Your task to perform on an android device: all mails in gmail Image 0: 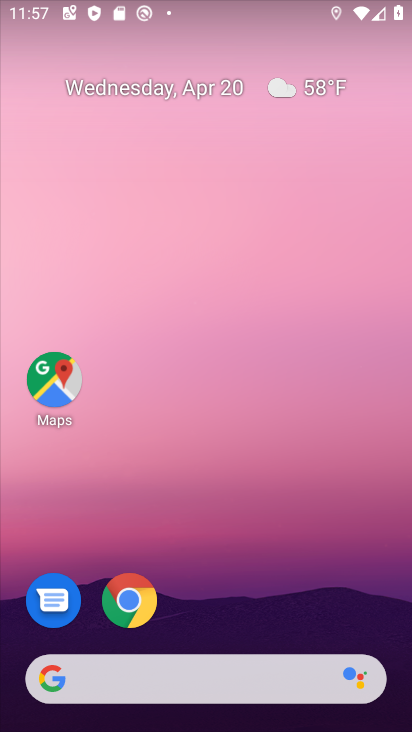
Step 0: drag from (193, 646) to (356, 17)
Your task to perform on an android device: all mails in gmail Image 1: 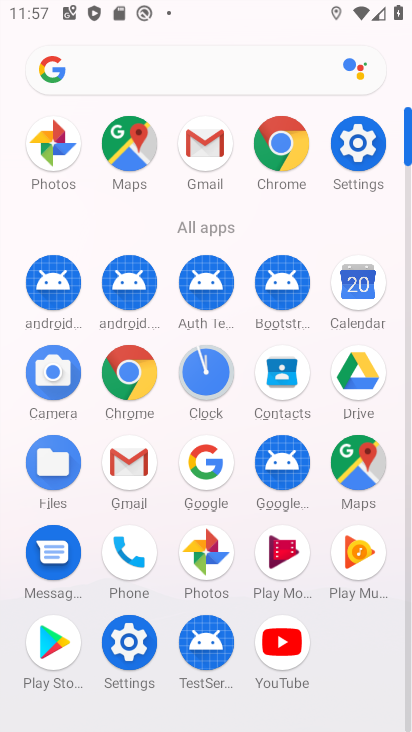
Step 1: click (139, 462)
Your task to perform on an android device: all mails in gmail Image 2: 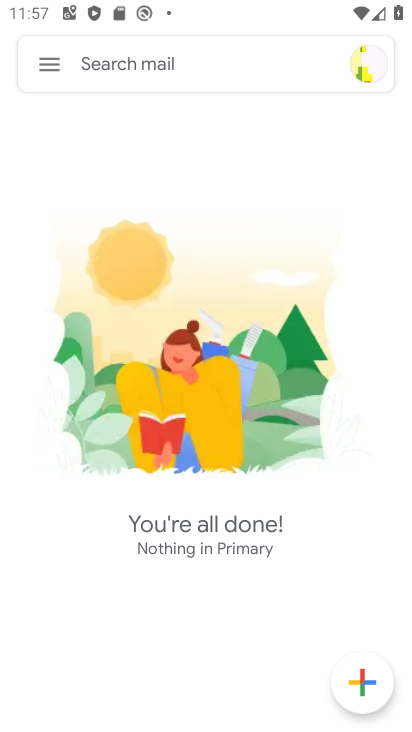
Step 2: click (42, 64)
Your task to perform on an android device: all mails in gmail Image 3: 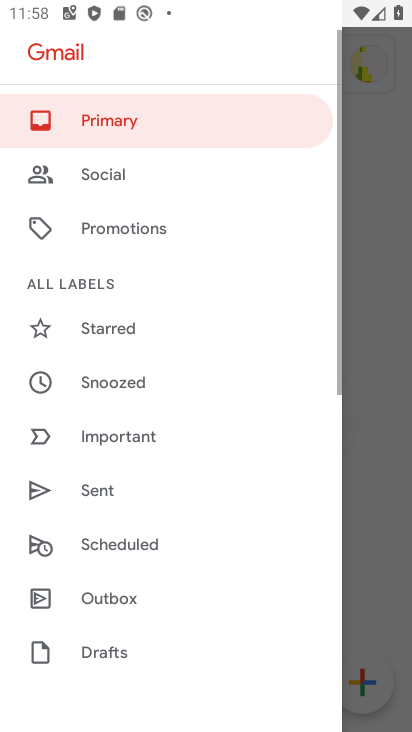
Step 3: drag from (138, 588) to (124, 290)
Your task to perform on an android device: all mails in gmail Image 4: 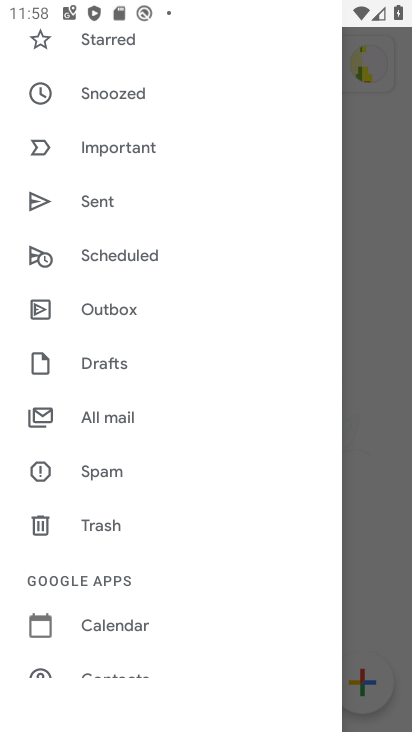
Step 4: click (101, 417)
Your task to perform on an android device: all mails in gmail Image 5: 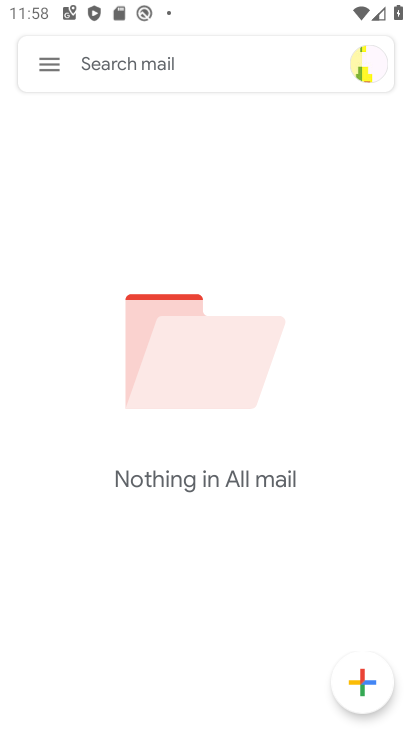
Step 5: task complete